Your task to perform on an android device: visit the assistant section in the google photos Image 0: 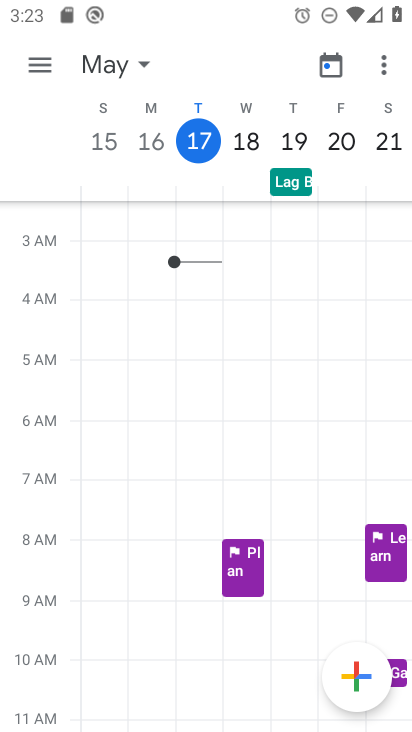
Step 0: press back button
Your task to perform on an android device: visit the assistant section in the google photos Image 1: 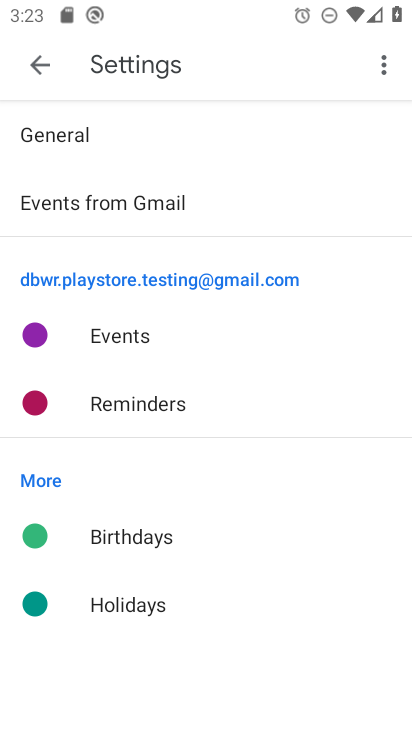
Step 1: press back button
Your task to perform on an android device: visit the assistant section in the google photos Image 2: 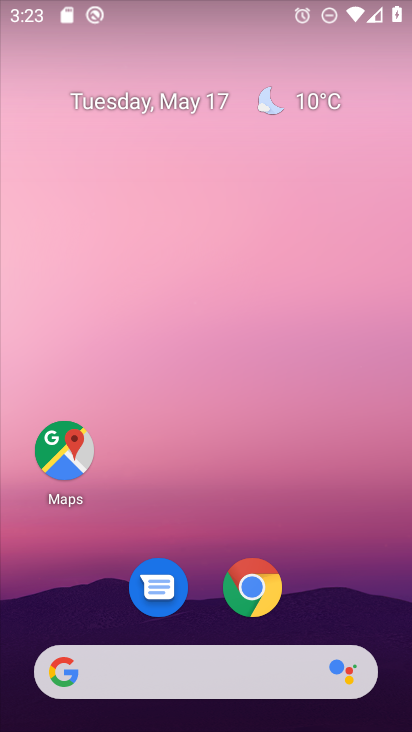
Step 2: drag from (331, 557) to (267, 62)
Your task to perform on an android device: visit the assistant section in the google photos Image 3: 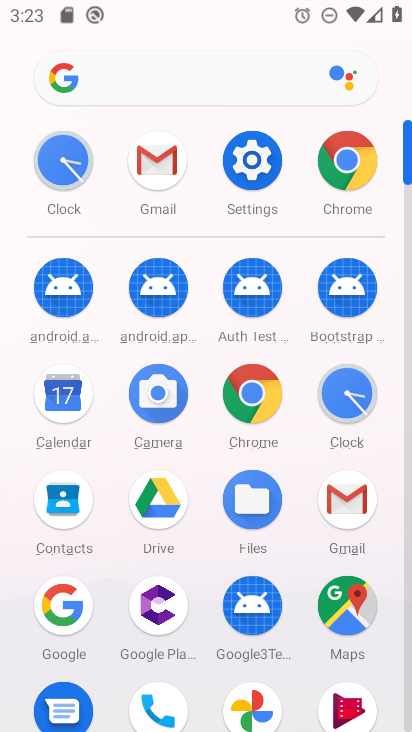
Step 3: drag from (13, 528) to (18, 241)
Your task to perform on an android device: visit the assistant section in the google photos Image 4: 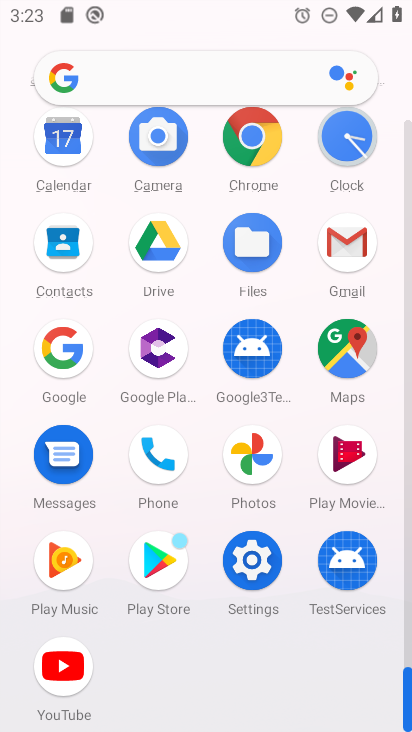
Step 4: click (250, 451)
Your task to perform on an android device: visit the assistant section in the google photos Image 5: 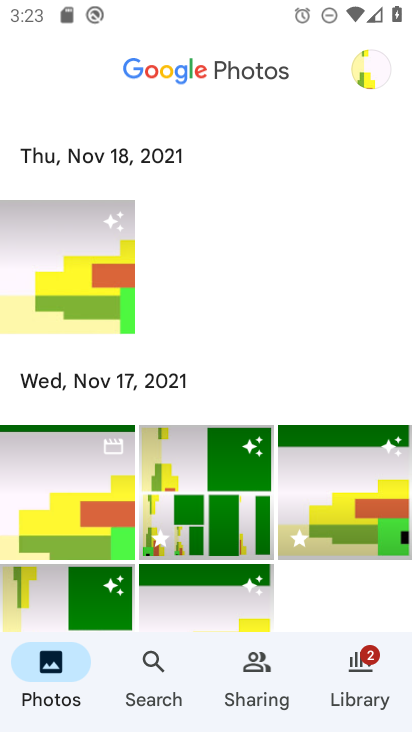
Step 5: click (374, 71)
Your task to perform on an android device: visit the assistant section in the google photos Image 6: 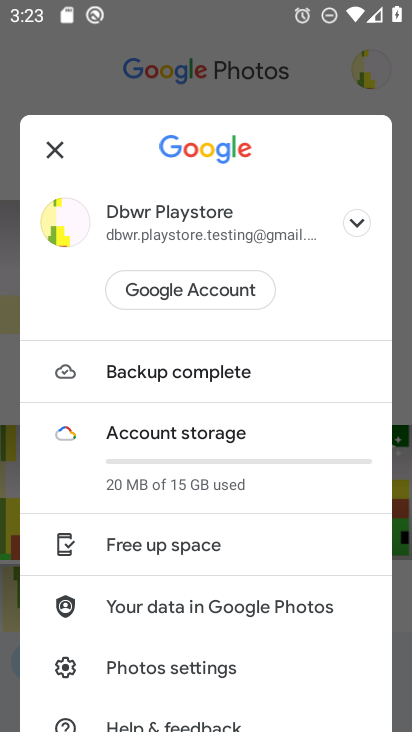
Step 6: drag from (306, 566) to (295, 175)
Your task to perform on an android device: visit the assistant section in the google photos Image 7: 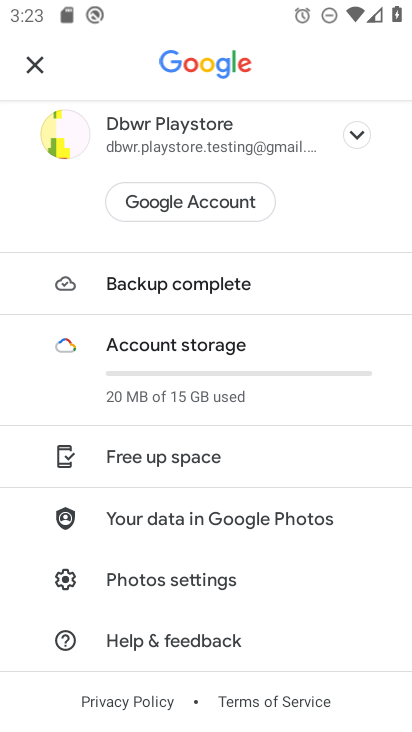
Step 7: click (23, 57)
Your task to perform on an android device: visit the assistant section in the google photos Image 8: 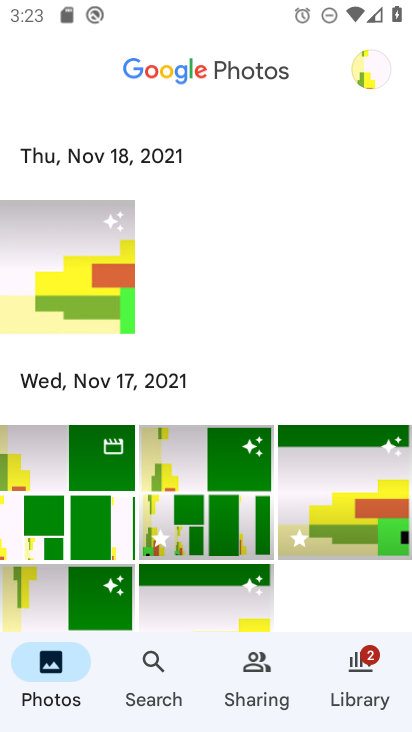
Step 8: click (287, 665)
Your task to perform on an android device: visit the assistant section in the google photos Image 9: 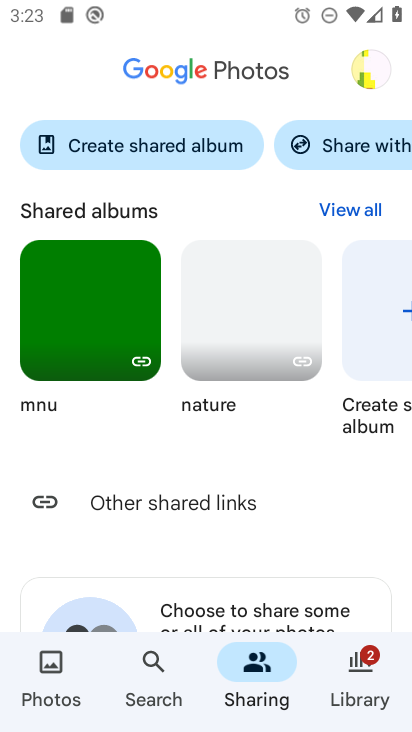
Step 9: click (370, 674)
Your task to perform on an android device: visit the assistant section in the google photos Image 10: 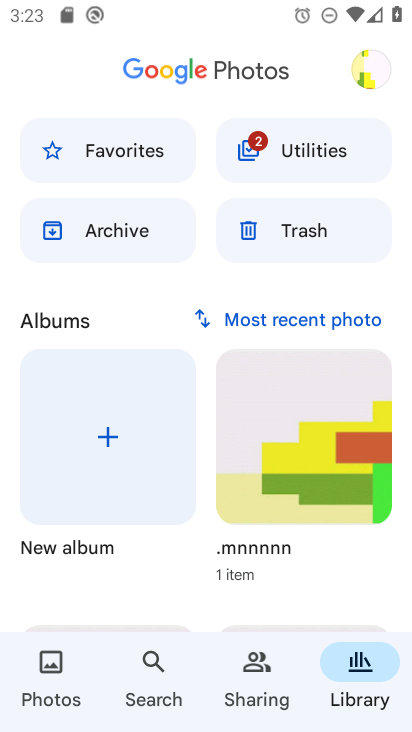
Step 10: drag from (237, 475) to (217, 177)
Your task to perform on an android device: visit the assistant section in the google photos Image 11: 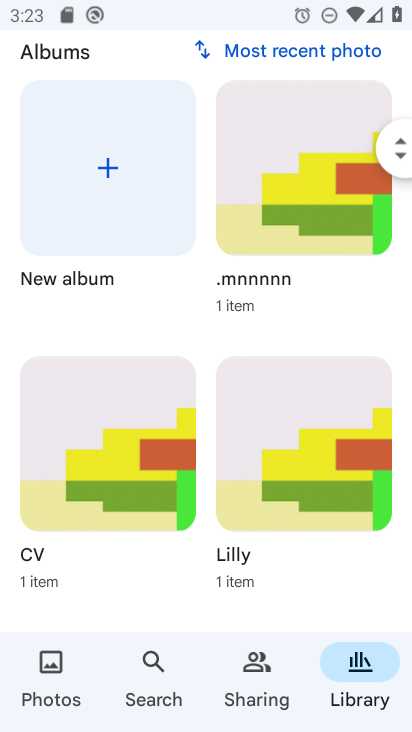
Step 11: drag from (255, 534) to (242, 158)
Your task to perform on an android device: visit the assistant section in the google photos Image 12: 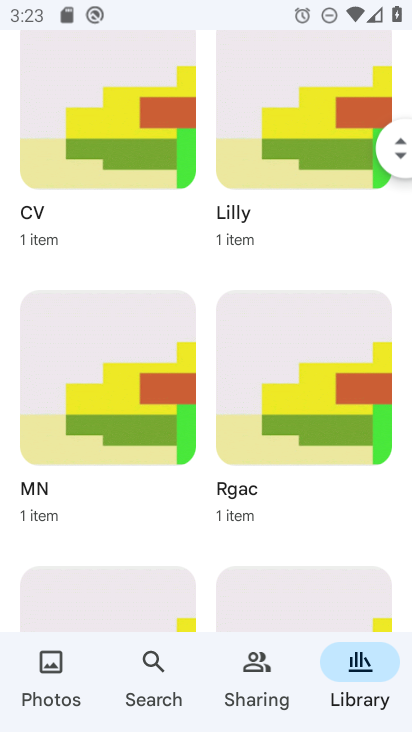
Step 12: drag from (241, 567) to (254, 216)
Your task to perform on an android device: visit the assistant section in the google photos Image 13: 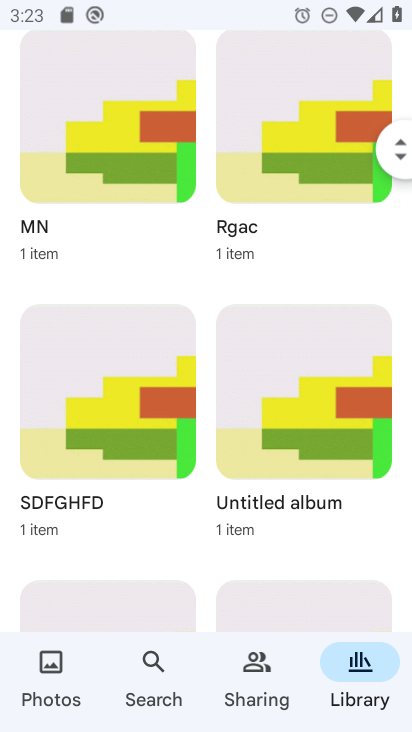
Step 13: drag from (287, 505) to (302, 129)
Your task to perform on an android device: visit the assistant section in the google photos Image 14: 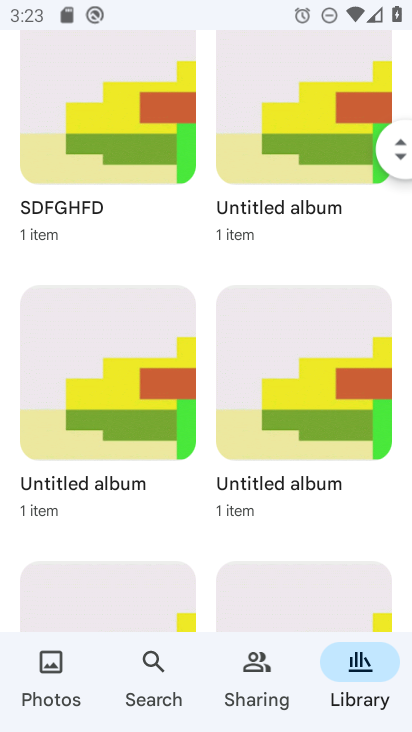
Step 14: drag from (266, 480) to (305, 122)
Your task to perform on an android device: visit the assistant section in the google photos Image 15: 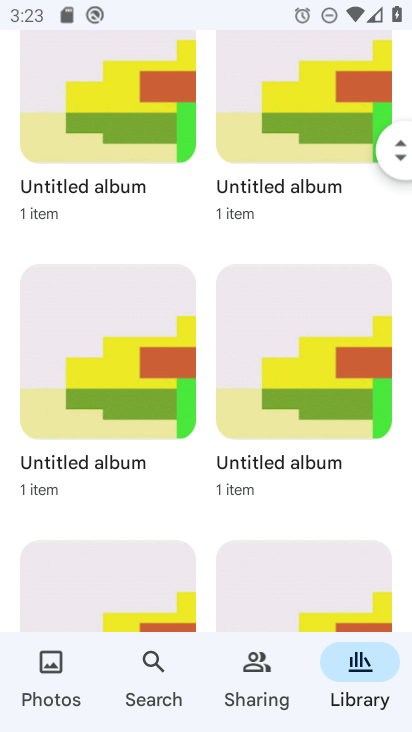
Step 15: drag from (253, 558) to (253, 143)
Your task to perform on an android device: visit the assistant section in the google photos Image 16: 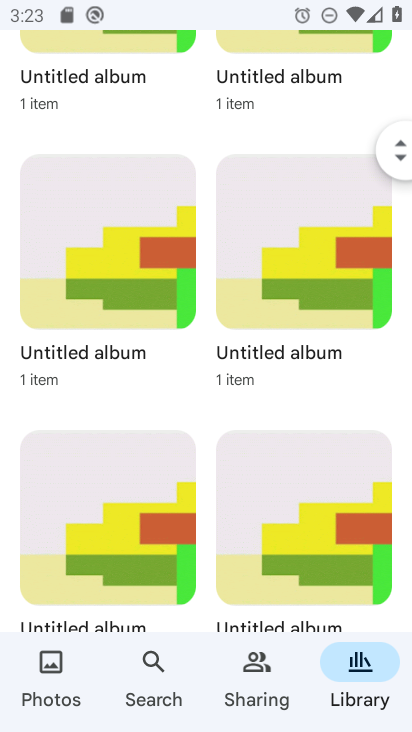
Step 16: drag from (217, 467) to (229, 123)
Your task to perform on an android device: visit the assistant section in the google photos Image 17: 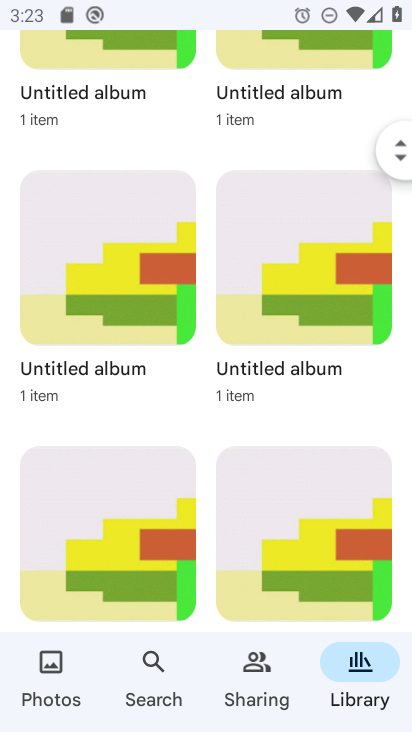
Step 17: drag from (259, 483) to (301, 132)
Your task to perform on an android device: visit the assistant section in the google photos Image 18: 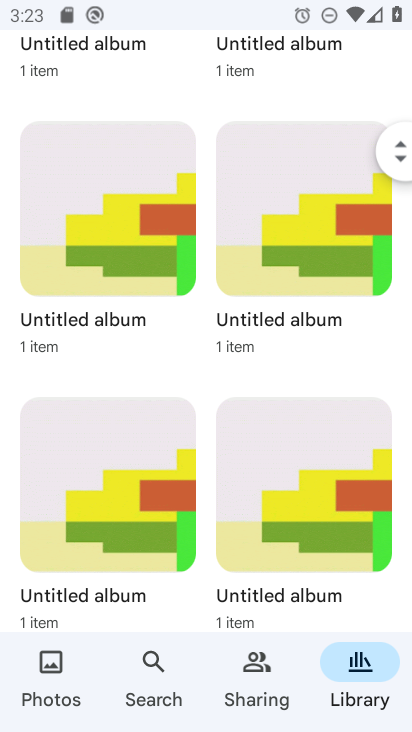
Step 18: drag from (298, 495) to (263, 145)
Your task to perform on an android device: visit the assistant section in the google photos Image 19: 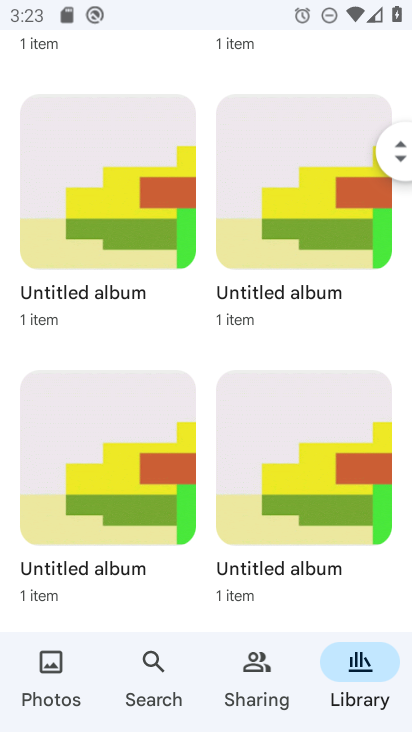
Step 19: drag from (237, 569) to (280, 137)
Your task to perform on an android device: visit the assistant section in the google photos Image 20: 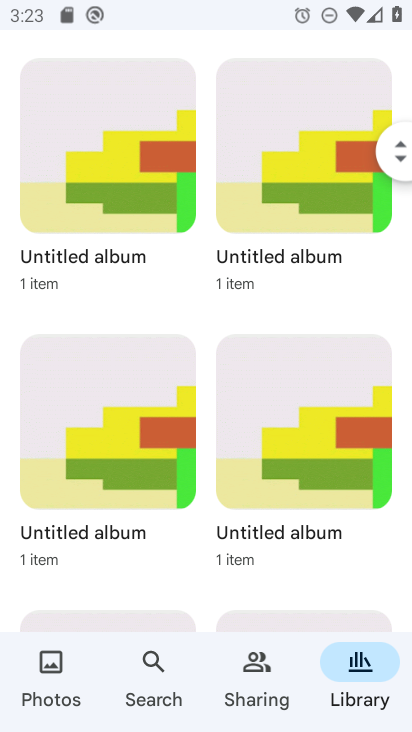
Step 20: drag from (397, 140) to (405, 187)
Your task to perform on an android device: visit the assistant section in the google photos Image 21: 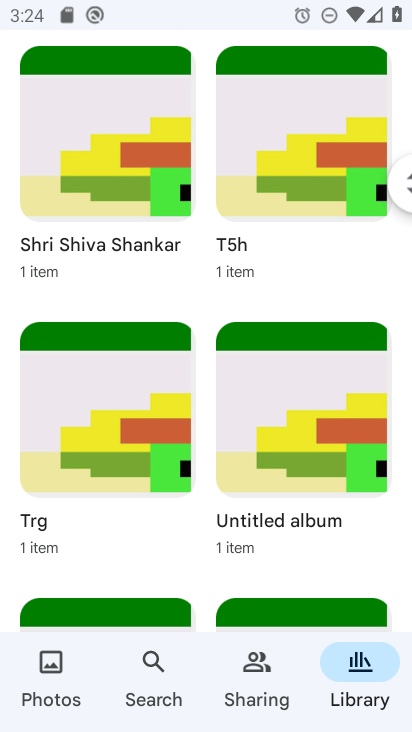
Step 21: drag from (395, 177) to (390, 261)
Your task to perform on an android device: visit the assistant section in the google photos Image 22: 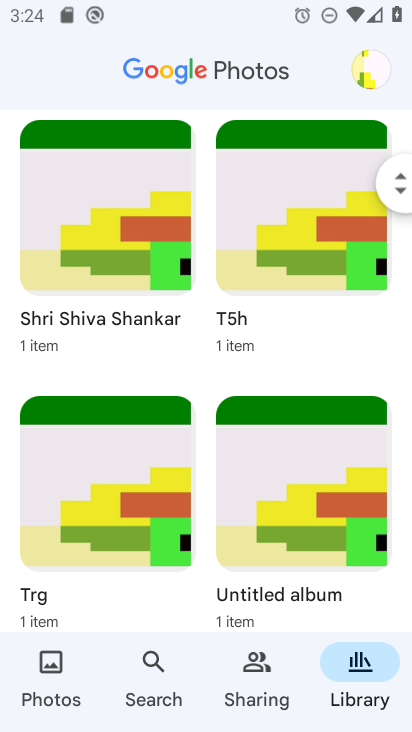
Step 22: drag from (393, 182) to (361, 1)
Your task to perform on an android device: visit the assistant section in the google photos Image 23: 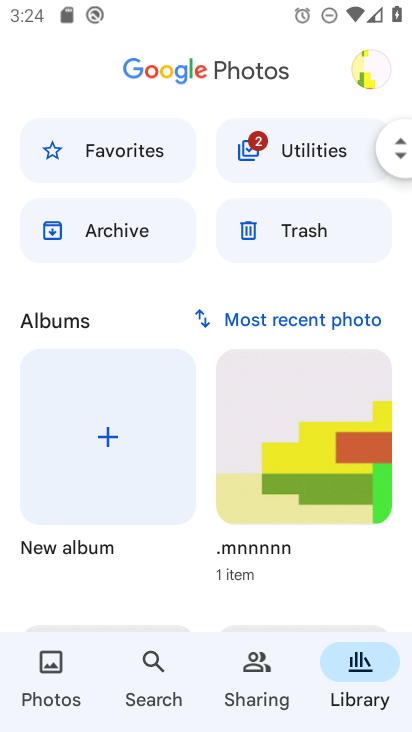
Step 23: click (311, 138)
Your task to perform on an android device: visit the assistant section in the google photos Image 24: 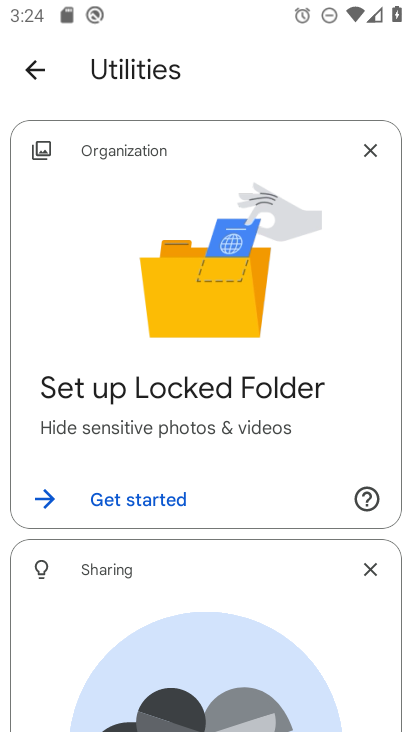
Step 24: drag from (266, 672) to (257, 153)
Your task to perform on an android device: visit the assistant section in the google photos Image 25: 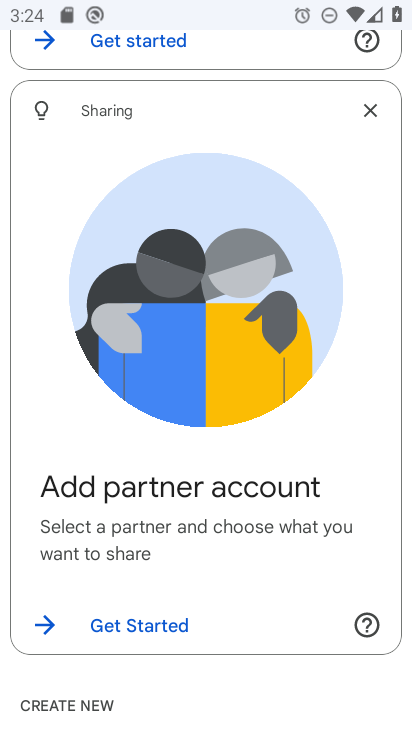
Step 25: drag from (269, 629) to (280, 181)
Your task to perform on an android device: visit the assistant section in the google photos Image 26: 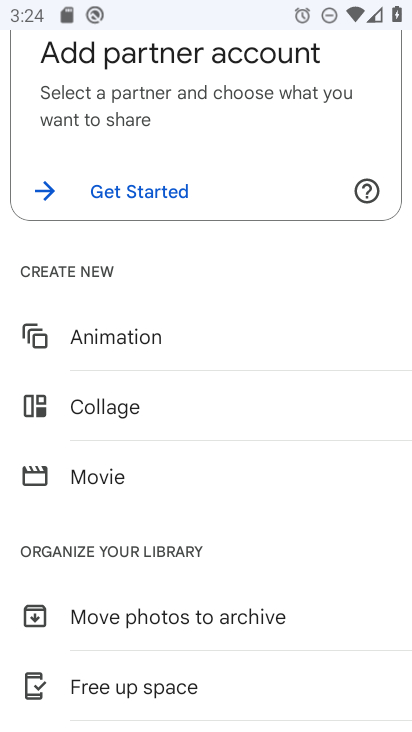
Step 26: drag from (211, 607) to (250, 200)
Your task to perform on an android device: visit the assistant section in the google photos Image 27: 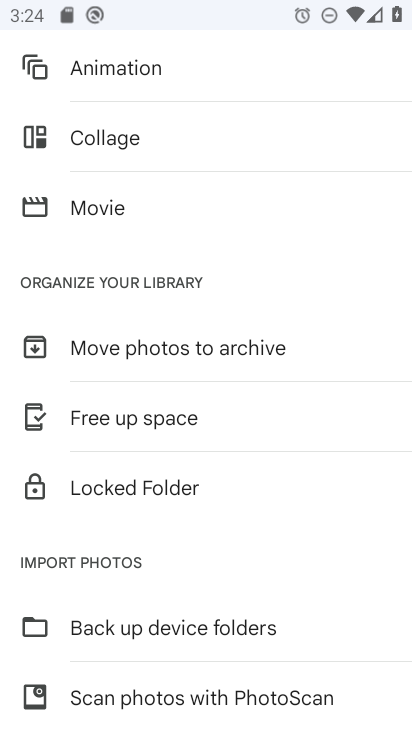
Step 27: drag from (216, 665) to (257, 291)
Your task to perform on an android device: visit the assistant section in the google photos Image 28: 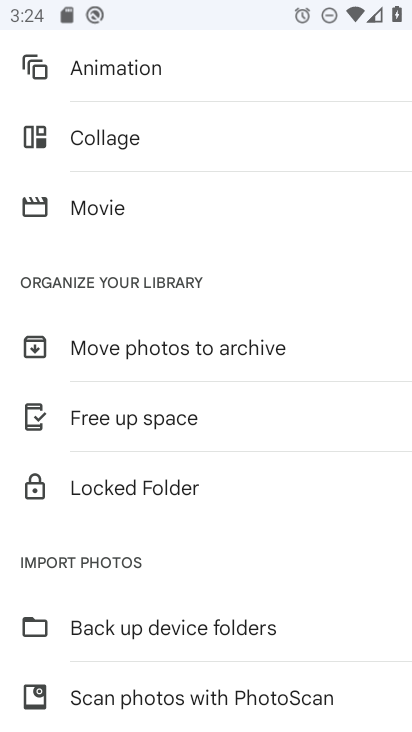
Step 28: click (208, 620)
Your task to perform on an android device: visit the assistant section in the google photos Image 29: 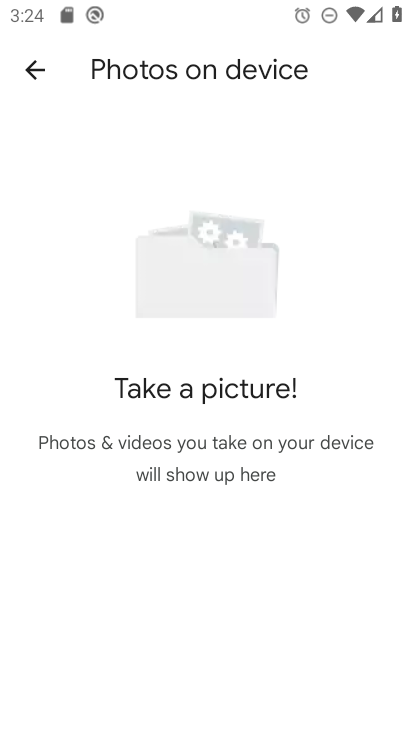
Step 29: click (48, 73)
Your task to perform on an android device: visit the assistant section in the google photos Image 30: 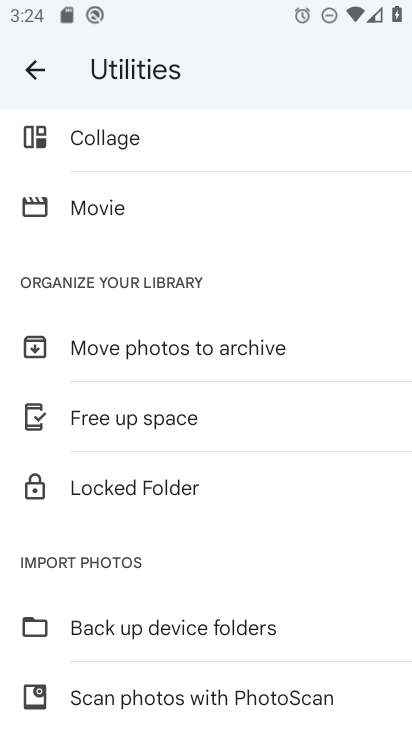
Step 30: click (194, 689)
Your task to perform on an android device: visit the assistant section in the google photos Image 31: 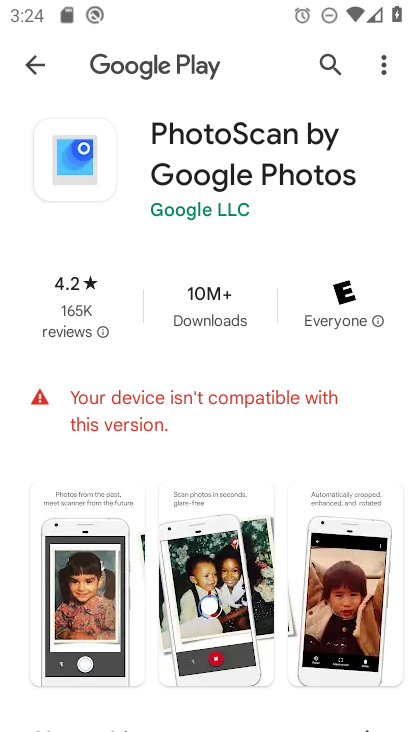
Step 31: click (19, 71)
Your task to perform on an android device: visit the assistant section in the google photos Image 32: 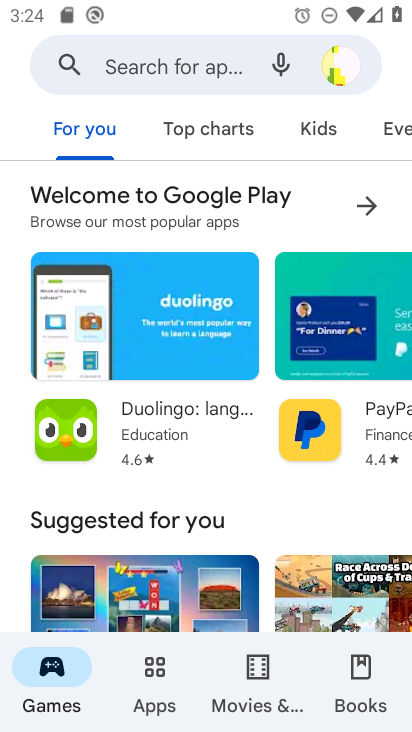
Step 32: press back button
Your task to perform on an android device: visit the assistant section in the google photos Image 33: 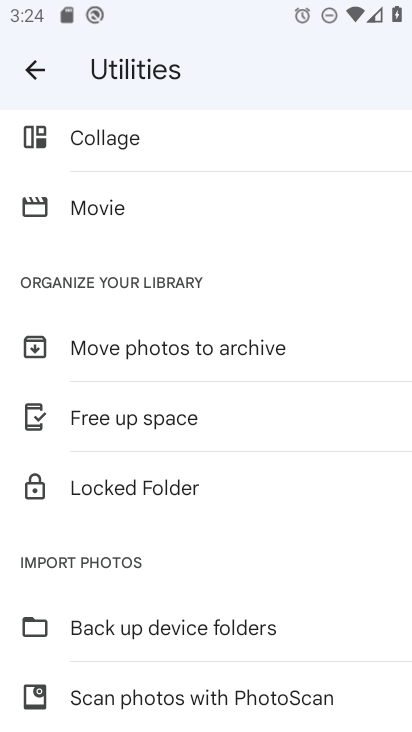
Step 33: click (40, 64)
Your task to perform on an android device: visit the assistant section in the google photos Image 34: 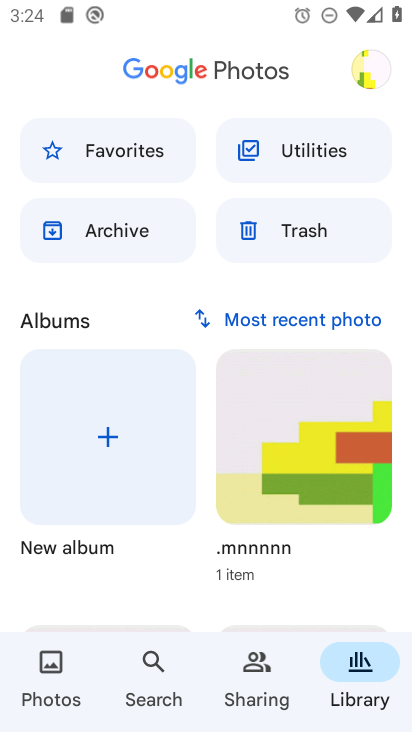
Step 34: task complete